Your task to perform on an android device: toggle wifi Image 0: 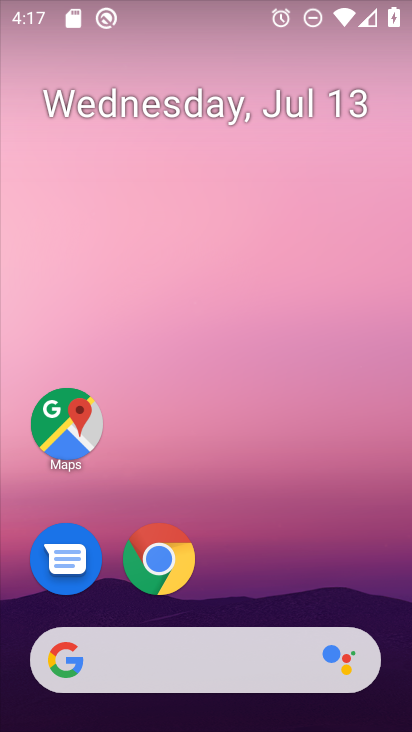
Step 0: drag from (372, 572) to (372, 131)
Your task to perform on an android device: toggle wifi Image 1: 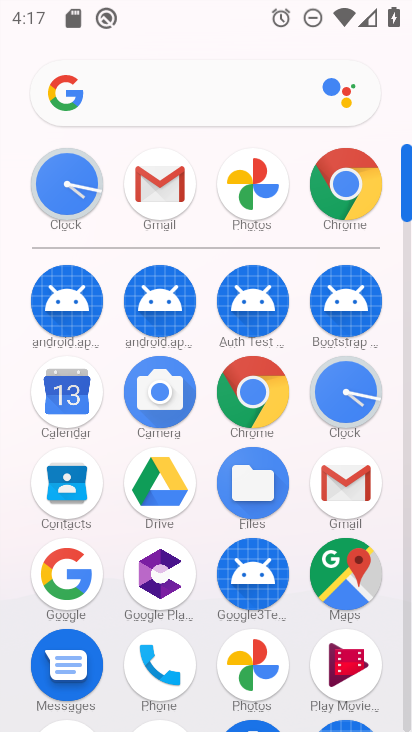
Step 1: drag from (393, 541) to (393, 345)
Your task to perform on an android device: toggle wifi Image 2: 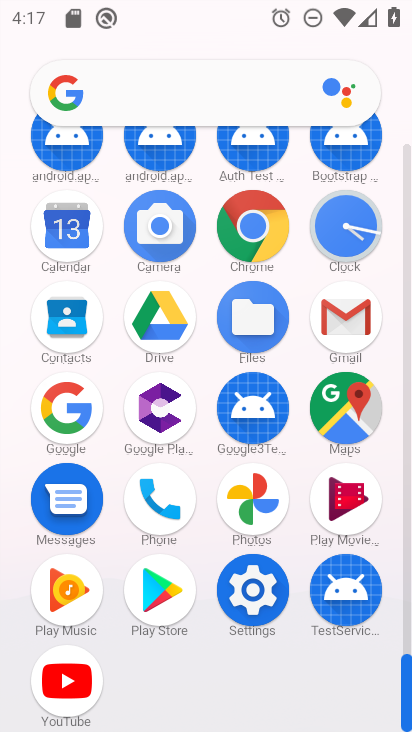
Step 2: click (273, 592)
Your task to perform on an android device: toggle wifi Image 3: 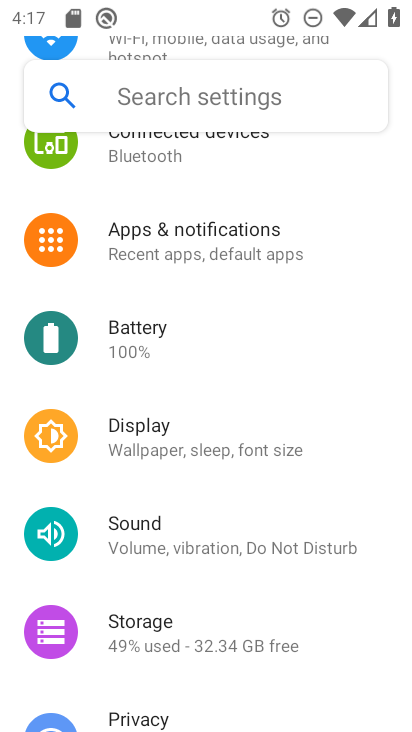
Step 3: drag from (334, 590) to (354, 463)
Your task to perform on an android device: toggle wifi Image 4: 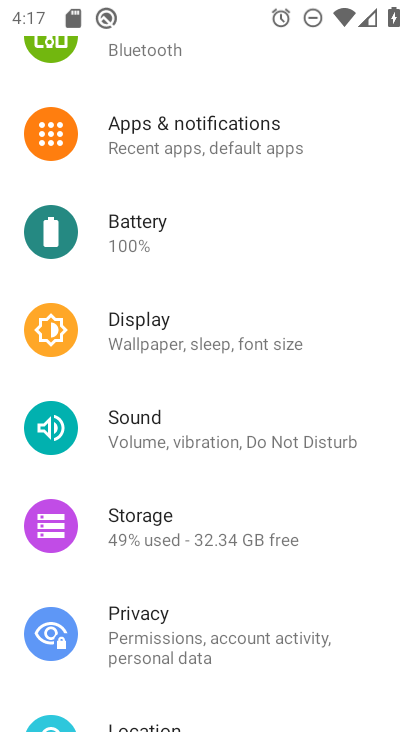
Step 4: drag from (356, 577) to (370, 495)
Your task to perform on an android device: toggle wifi Image 5: 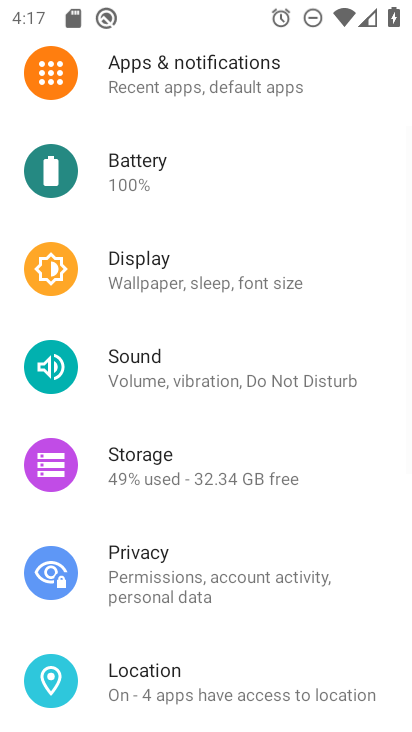
Step 5: drag from (341, 615) to (361, 480)
Your task to perform on an android device: toggle wifi Image 6: 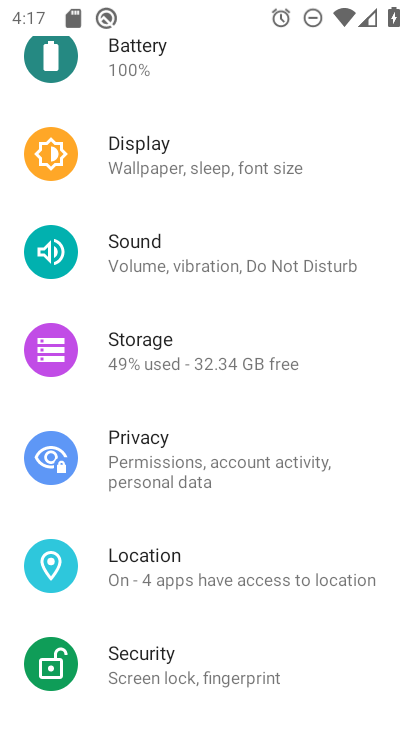
Step 6: drag from (355, 662) to (361, 442)
Your task to perform on an android device: toggle wifi Image 7: 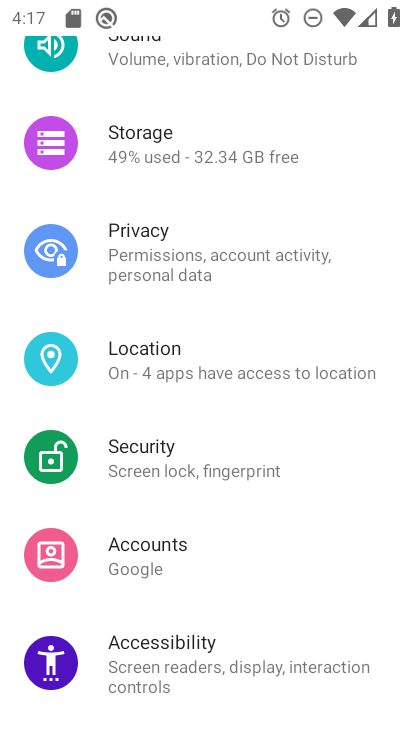
Step 7: drag from (364, 481) to (364, 557)
Your task to perform on an android device: toggle wifi Image 8: 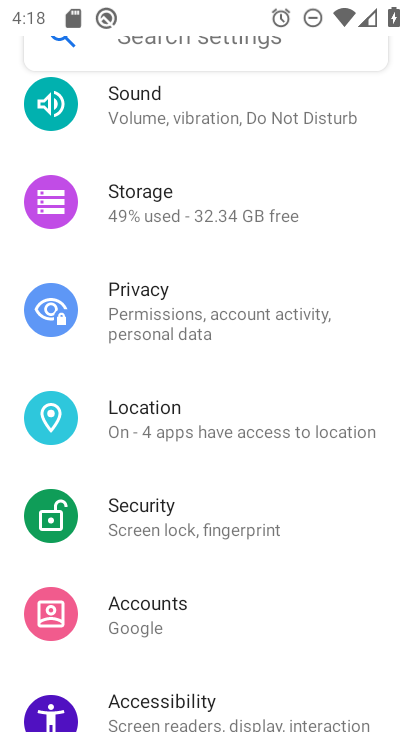
Step 8: drag from (364, 420) to (364, 519)
Your task to perform on an android device: toggle wifi Image 9: 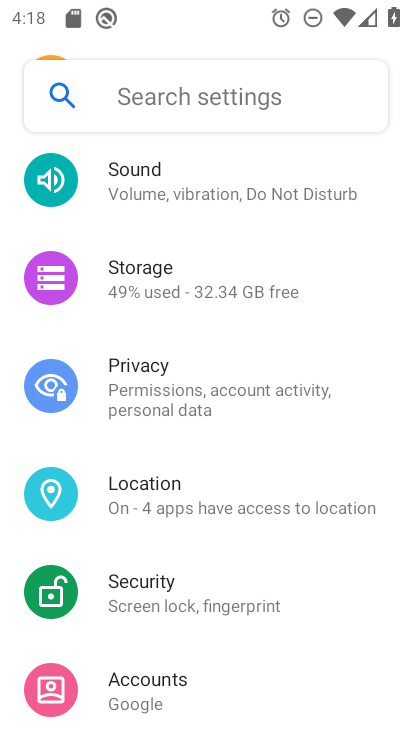
Step 9: drag from (364, 393) to (365, 490)
Your task to perform on an android device: toggle wifi Image 10: 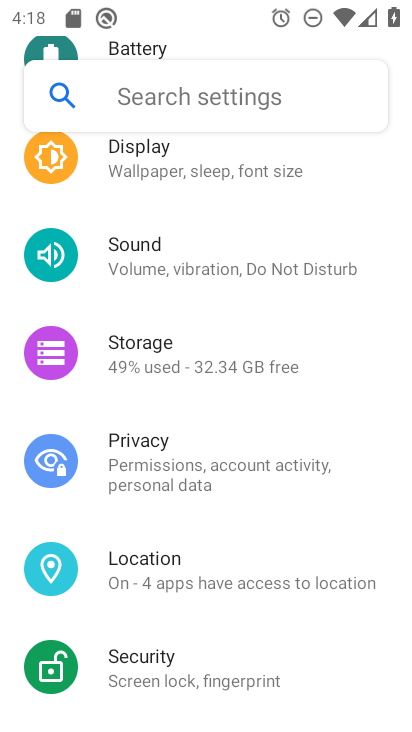
Step 10: drag from (360, 377) to (359, 465)
Your task to perform on an android device: toggle wifi Image 11: 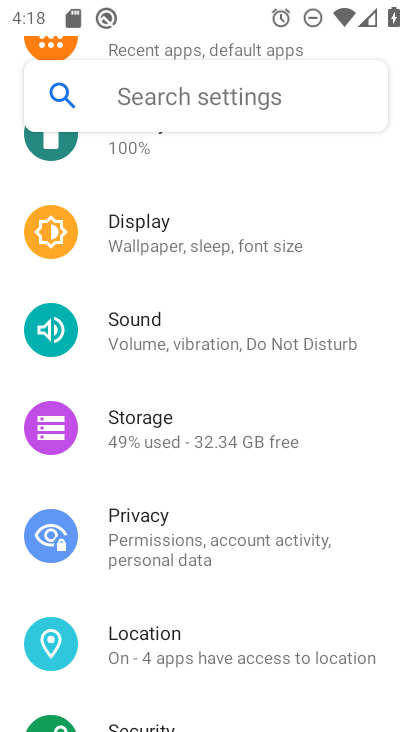
Step 11: drag from (359, 399) to (359, 478)
Your task to perform on an android device: toggle wifi Image 12: 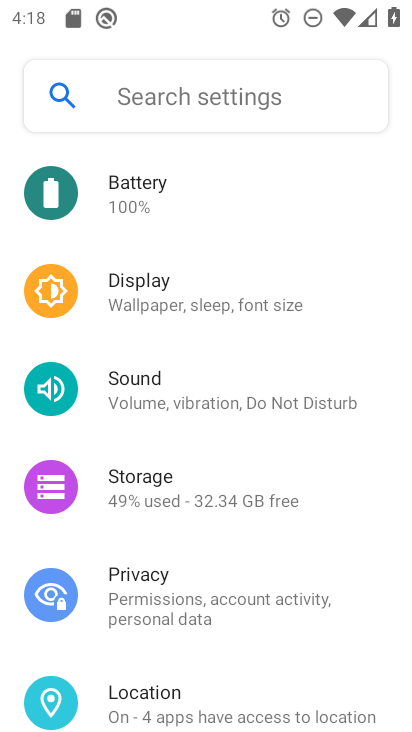
Step 12: drag from (367, 371) to (364, 470)
Your task to perform on an android device: toggle wifi Image 13: 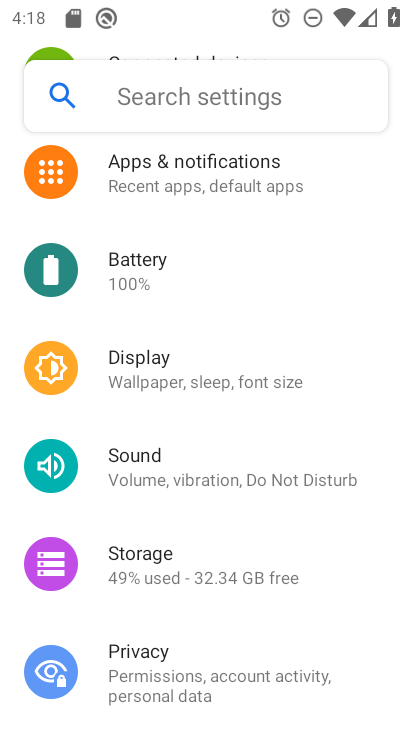
Step 13: drag from (359, 324) to (360, 421)
Your task to perform on an android device: toggle wifi Image 14: 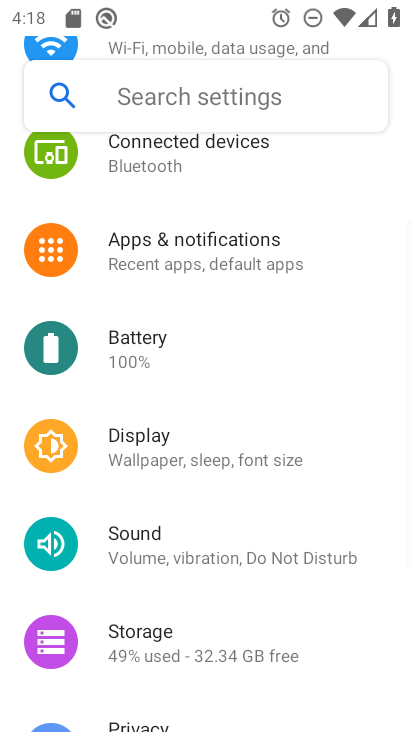
Step 14: drag from (362, 314) to (362, 427)
Your task to perform on an android device: toggle wifi Image 15: 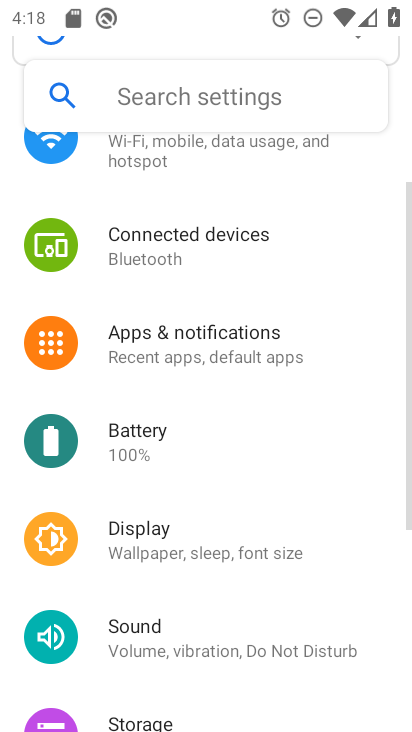
Step 15: drag from (352, 284) to (352, 398)
Your task to perform on an android device: toggle wifi Image 16: 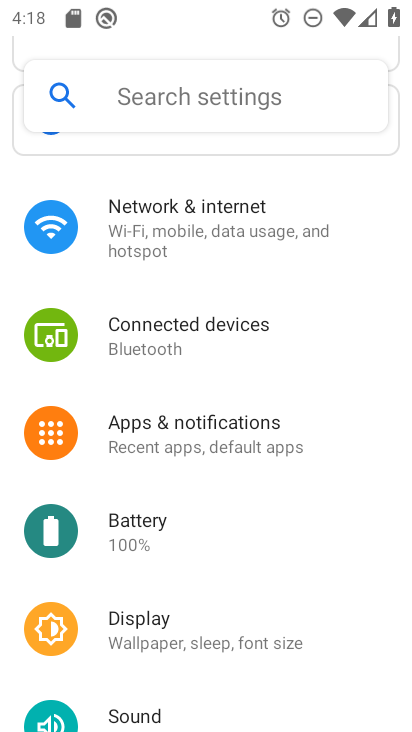
Step 16: click (327, 236)
Your task to perform on an android device: toggle wifi Image 17: 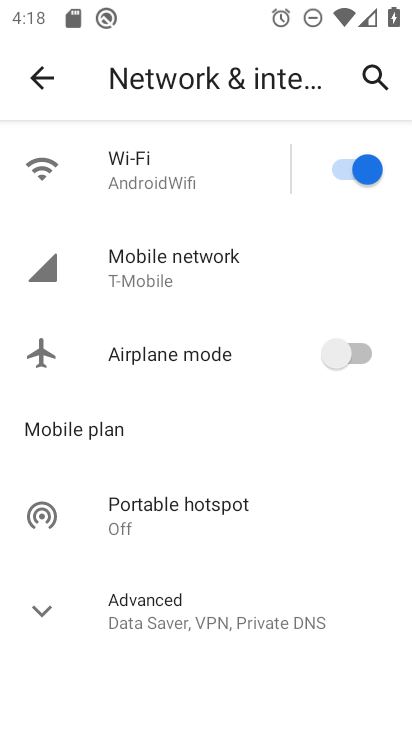
Step 17: click (358, 180)
Your task to perform on an android device: toggle wifi Image 18: 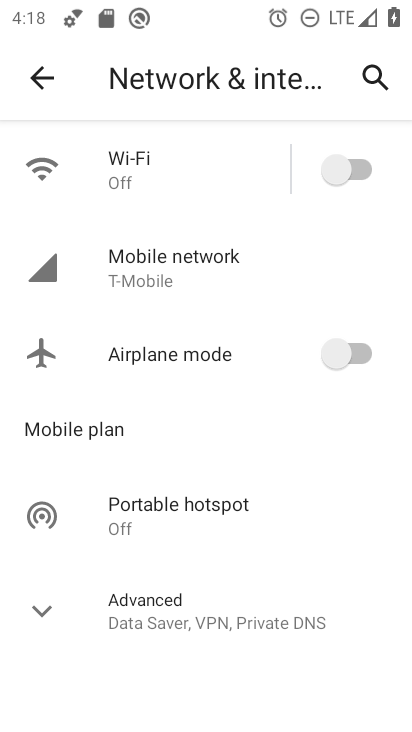
Step 18: task complete